Your task to perform on an android device: change keyboard looks Image 0: 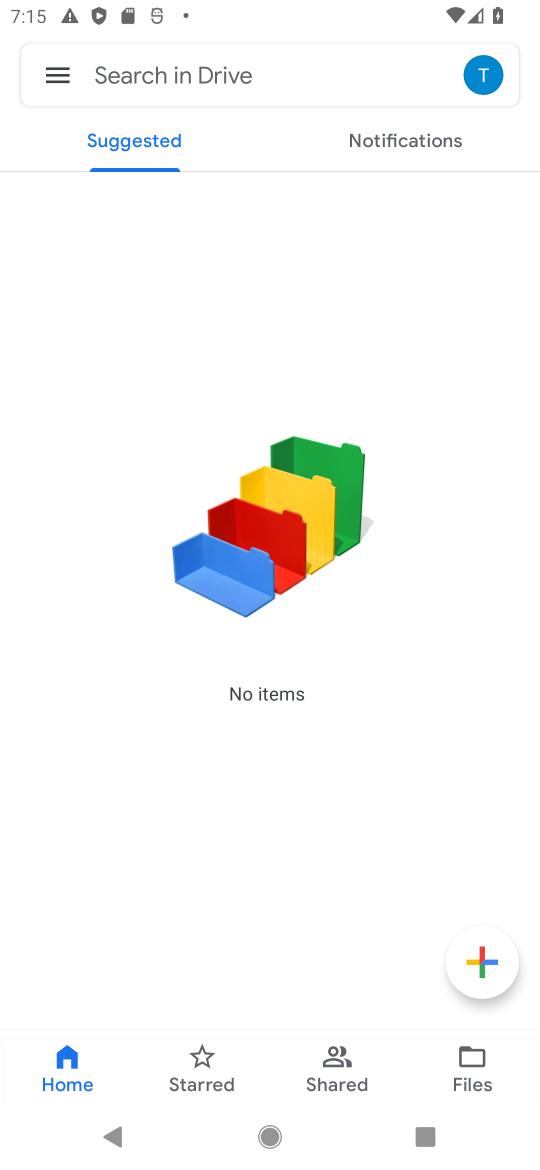
Step 0: press home button
Your task to perform on an android device: change keyboard looks Image 1: 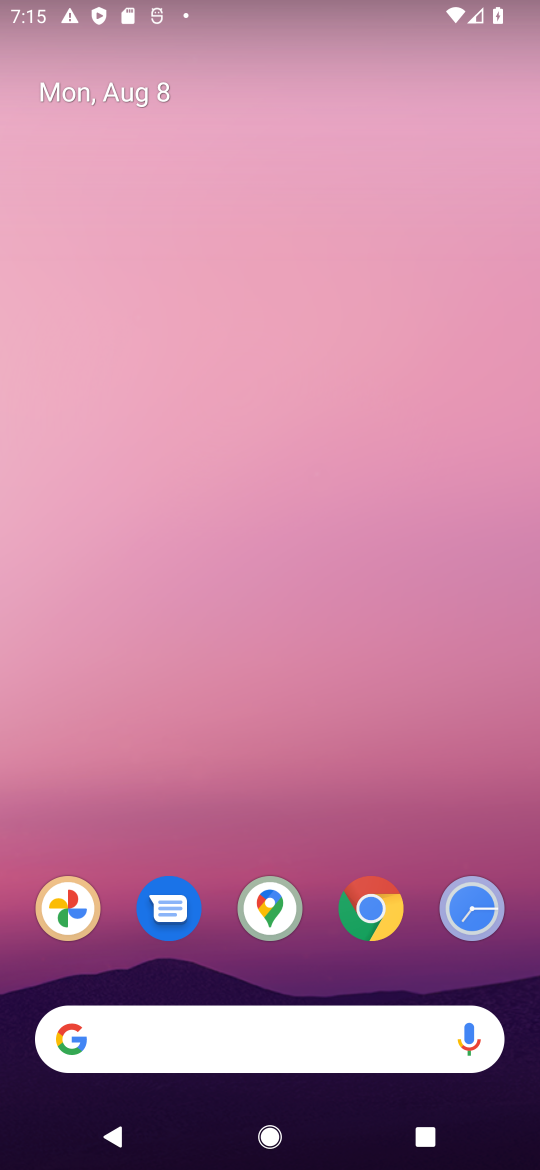
Step 1: drag from (197, 888) to (216, 41)
Your task to perform on an android device: change keyboard looks Image 2: 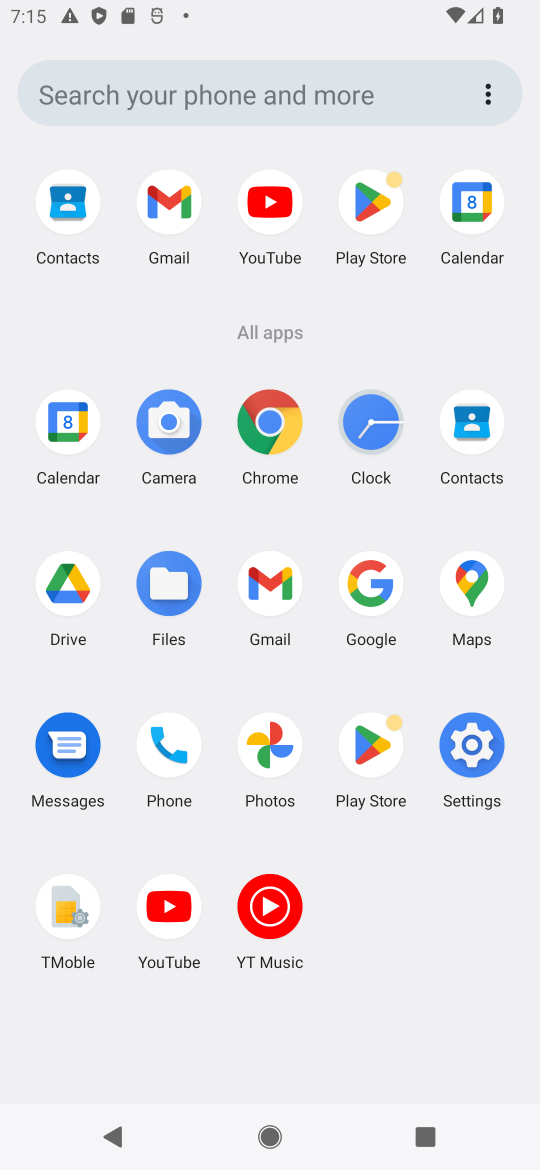
Step 2: click (482, 762)
Your task to perform on an android device: change keyboard looks Image 3: 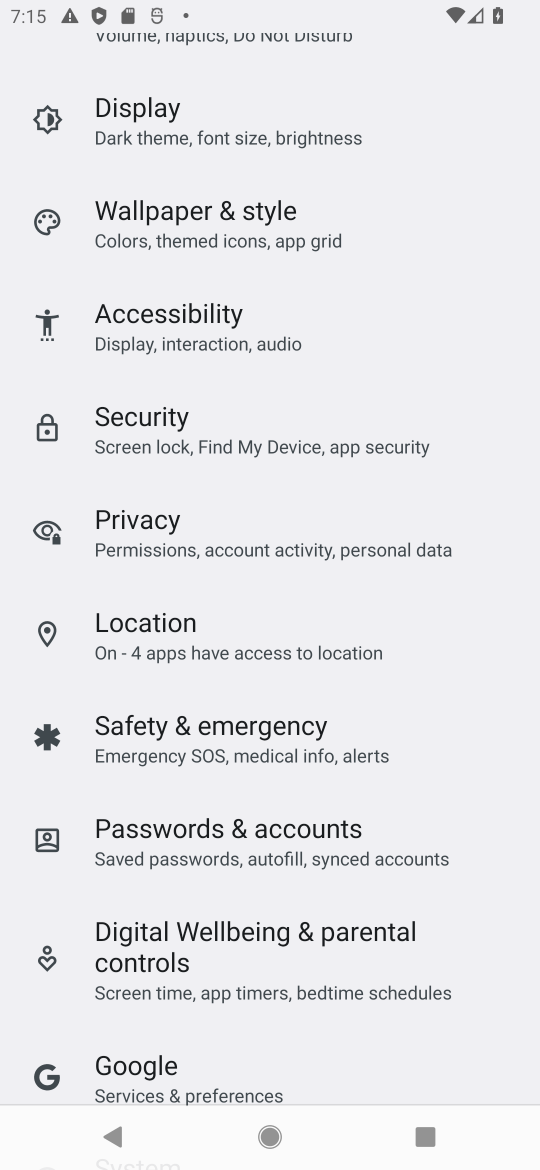
Step 3: drag from (208, 968) to (501, 59)
Your task to perform on an android device: change keyboard looks Image 4: 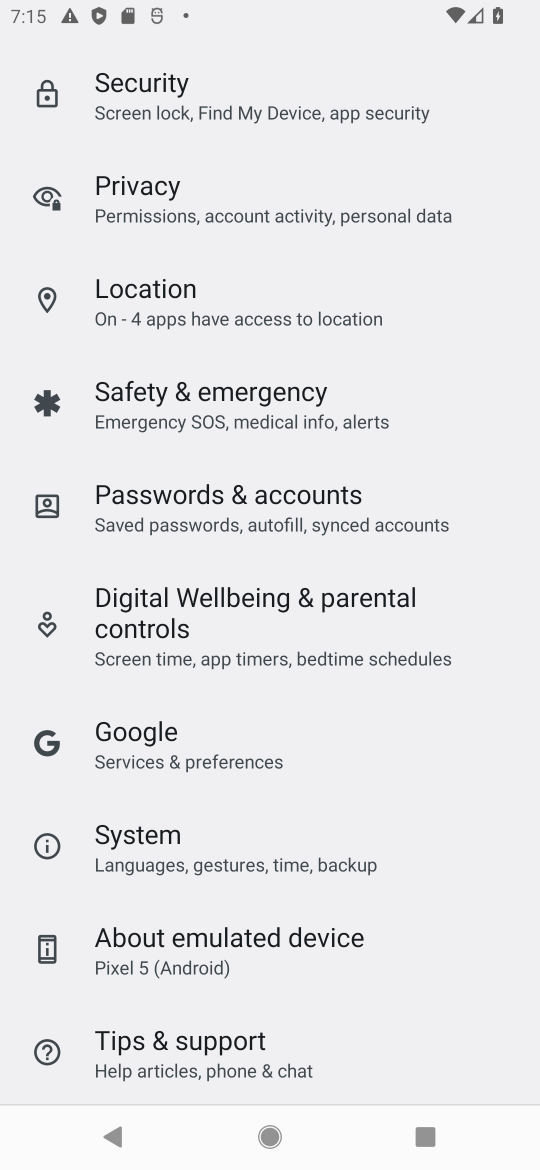
Step 4: drag from (256, 978) to (334, 233)
Your task to perform on an android device: change keyboard looks Image 5: 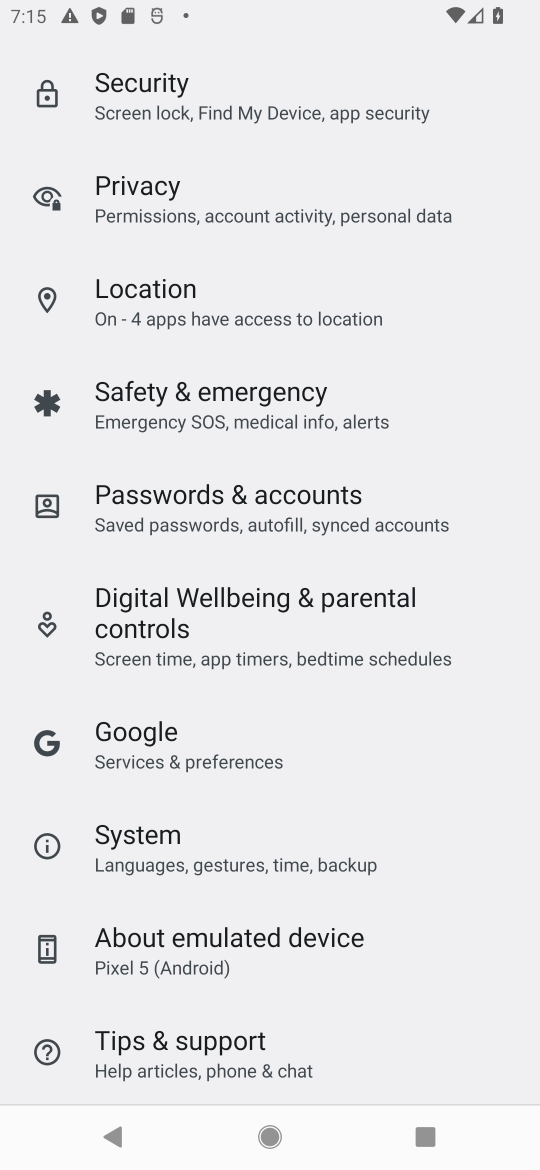
Step 5: click (223, 881)
Your task to perform on an android device: change keyboard looks Image 6: 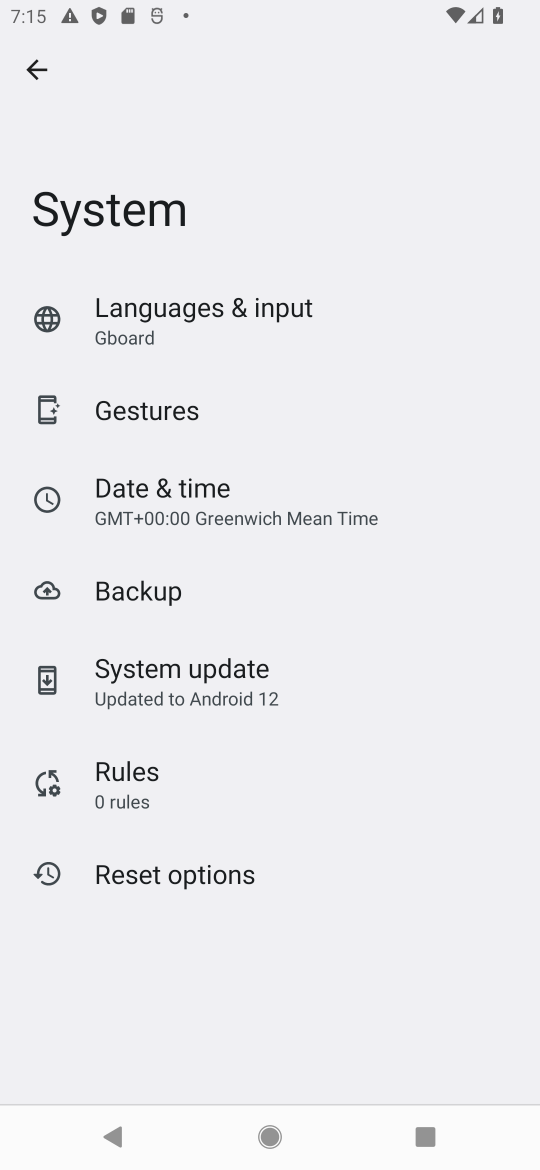
Step 6: click (143, 307)
Your task to perform on an android device: change keyboard looks Image 7: 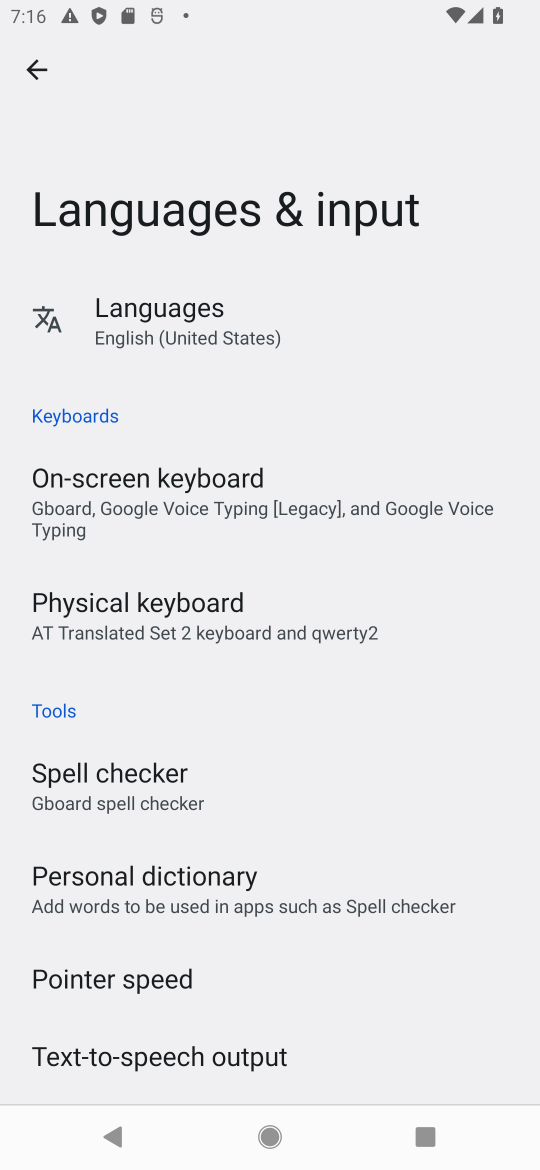
Step 7: click (232, 473)
Your task to perform on an android device: change keyboard looks Image 8: 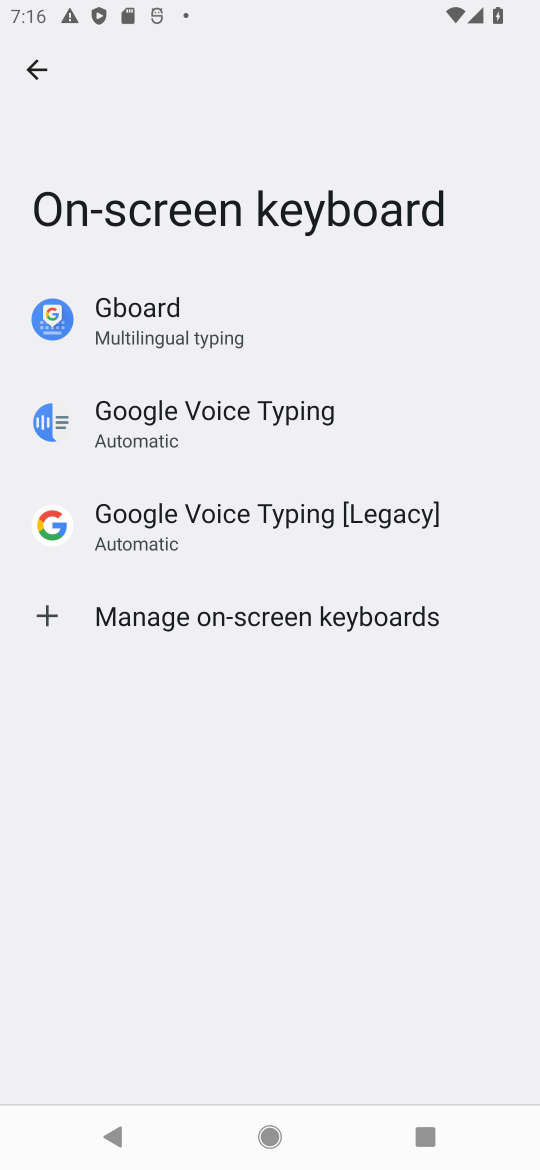
Step 8: click (203, 334)
Your task to perform on an android device: change keyboard looks Image 9: 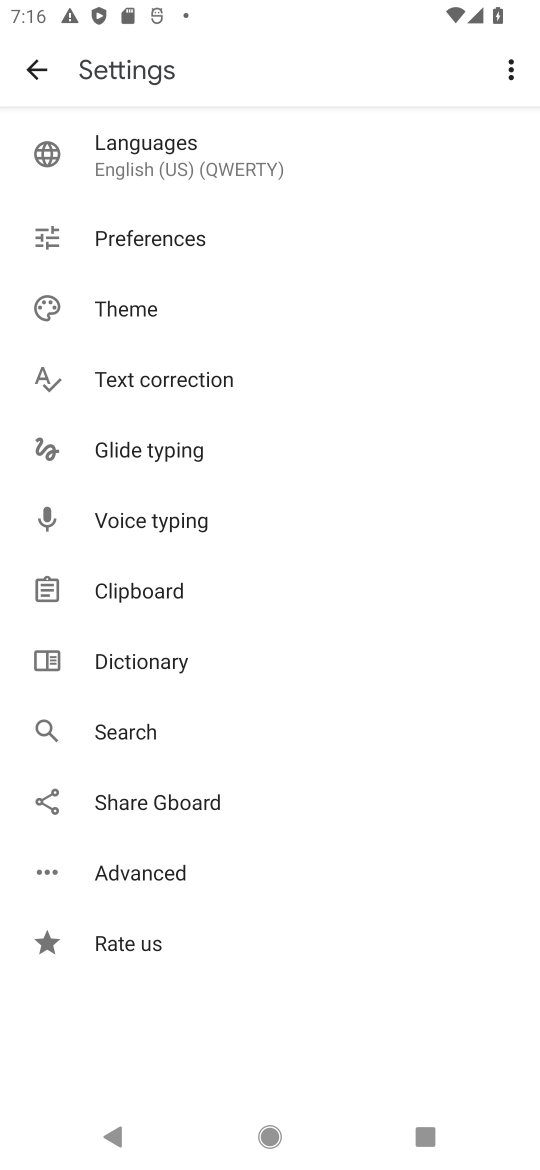
Step 9: click (174, 317)
Your task to perform on an android device: change keyboard looks Image 10: 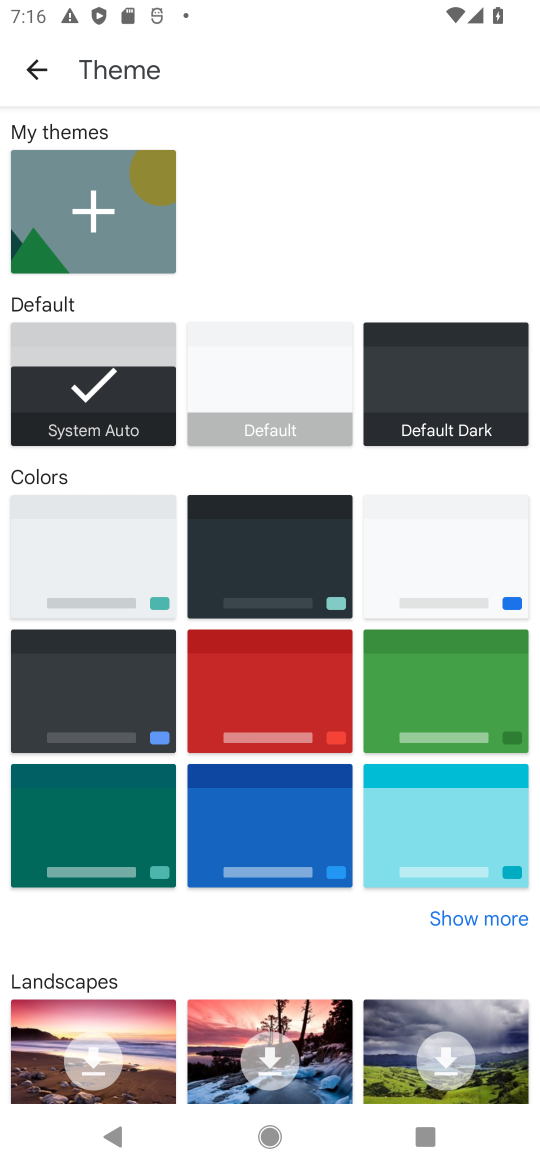
Step 10: click (123, 1066)
Your task to perform on an android device: change keyboard looks Image 11: 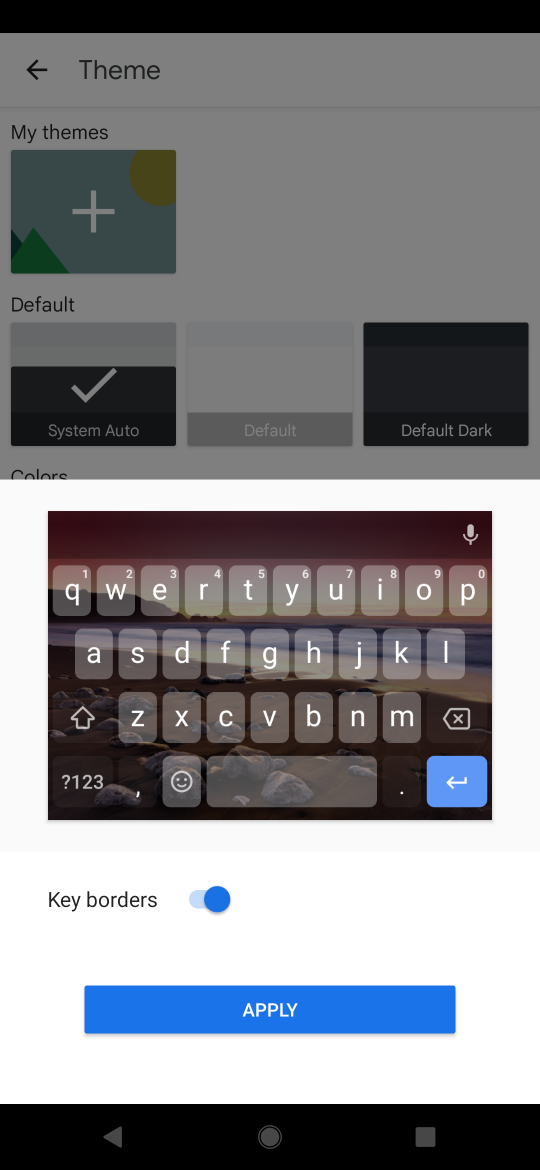
Step 11: click (358, 1012)
Your task to perform on an android device: change keyboard looks Image 12: 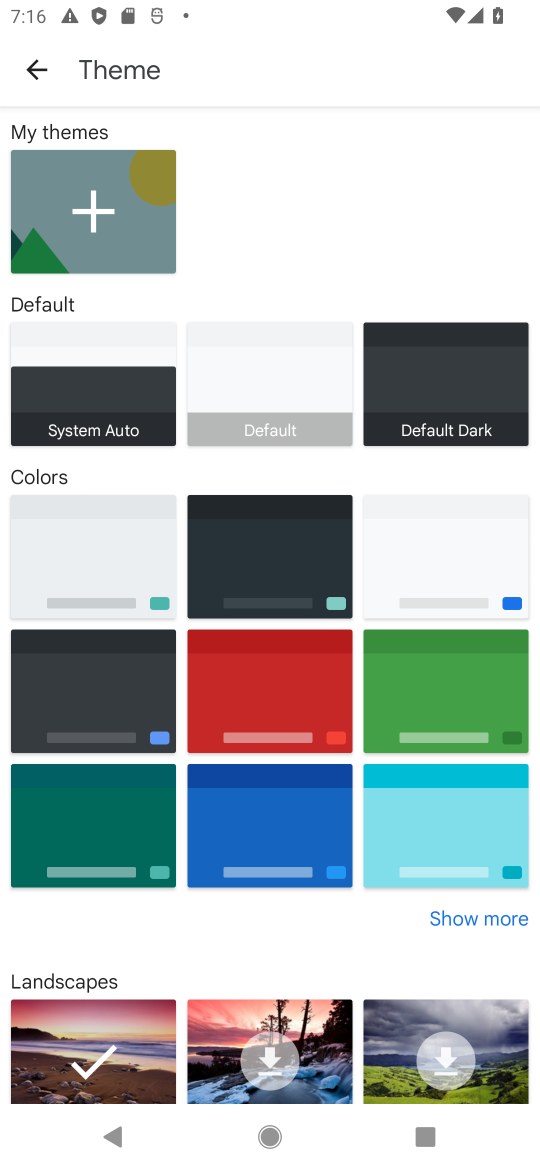
Step 12: task complete